Your task to perform on an android device: turn off sleep mode Image 0: 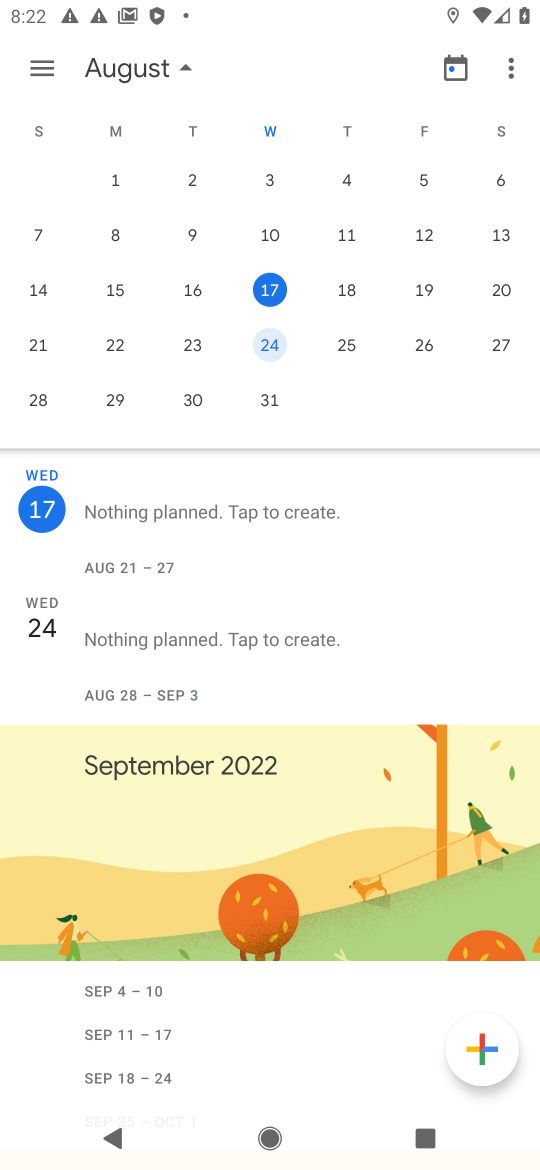
Step 0: press home button
Your task to perform on an android device: turn off sleep mode Image 1: 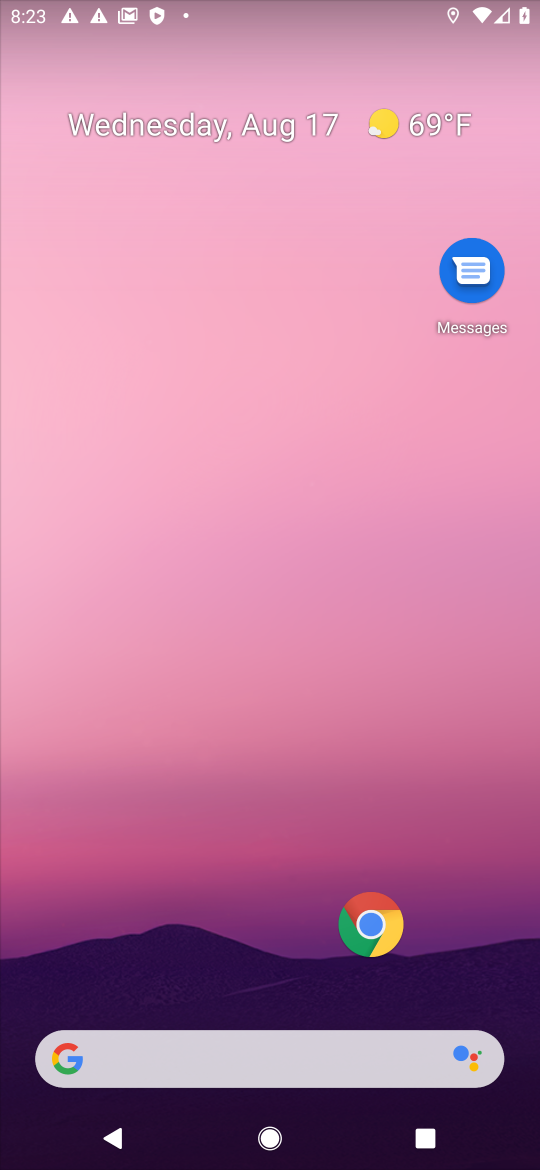
Step 1: drag from (334, 10) to (360, 770)
Your task to perform on an android device: turn off sleep mode Image 2: 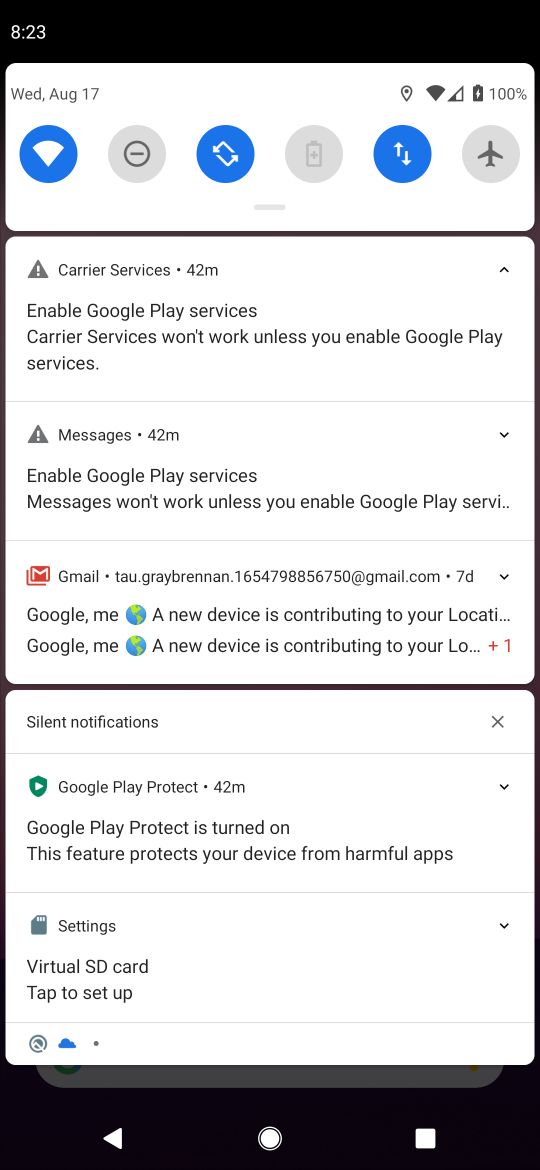
Step 2: drag from (303, 191) to (523, 874)
Your task to perform on an android device: turn off sleep mode Image 3: 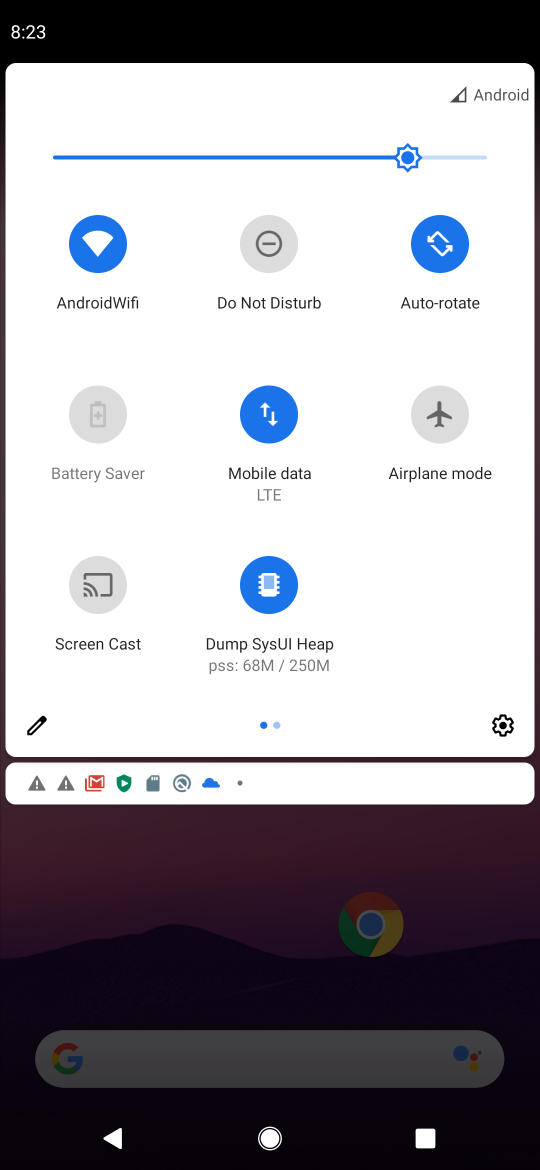
Step 3: click (478, 841)
Your task to perform on an android device: turn off sleep mode Image 4: 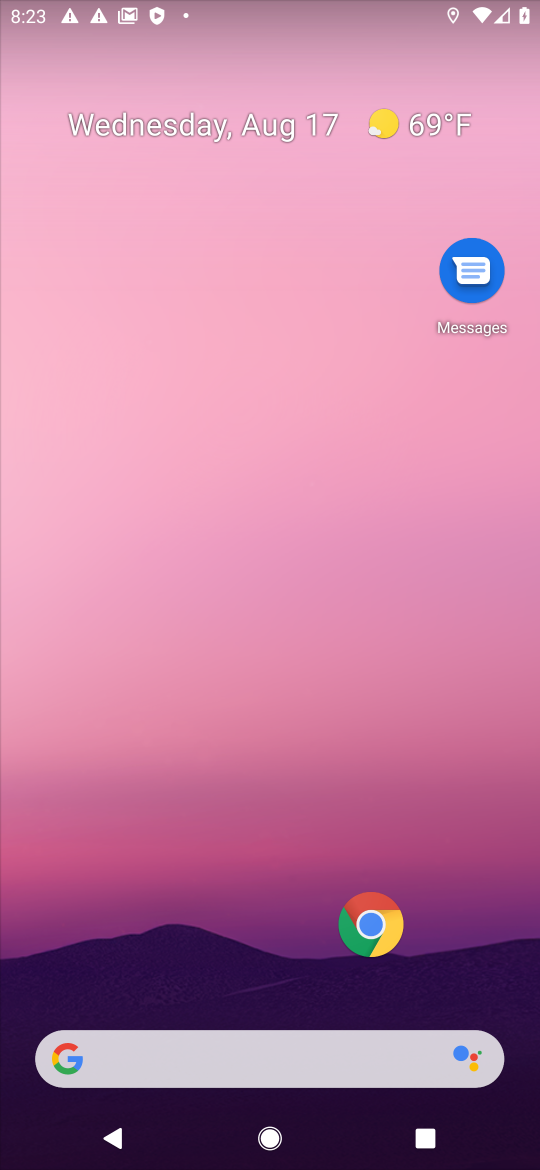
Step 4: drag from (219, 912) to (298, 65)
Your task to perform on an android device: turn off sleep mode Image 5: 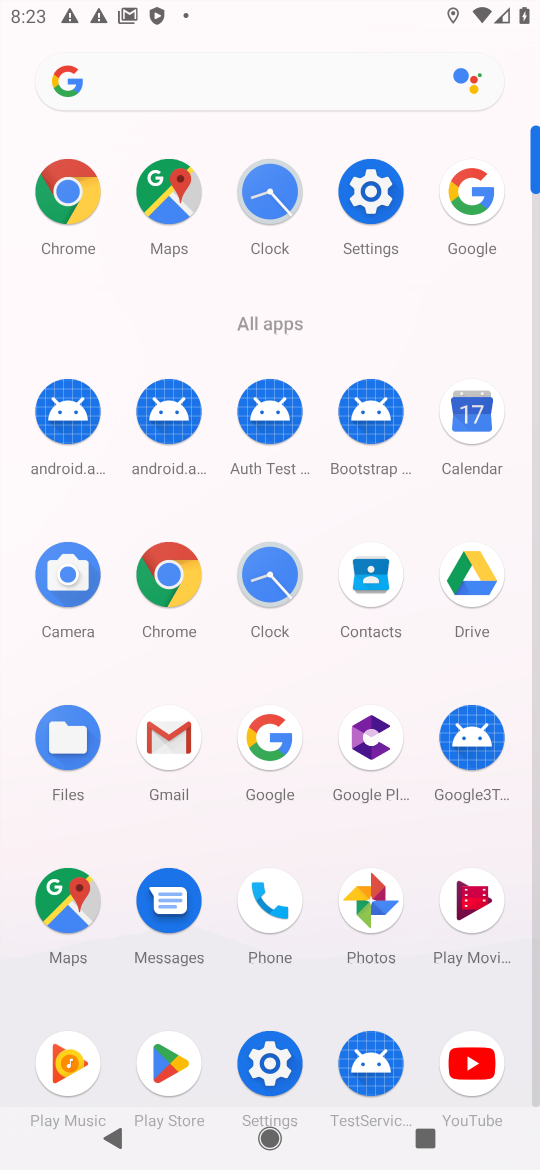
Step 5: click (374, 201)
Your task to perform on an android device: turn off sleep mode Image 6: 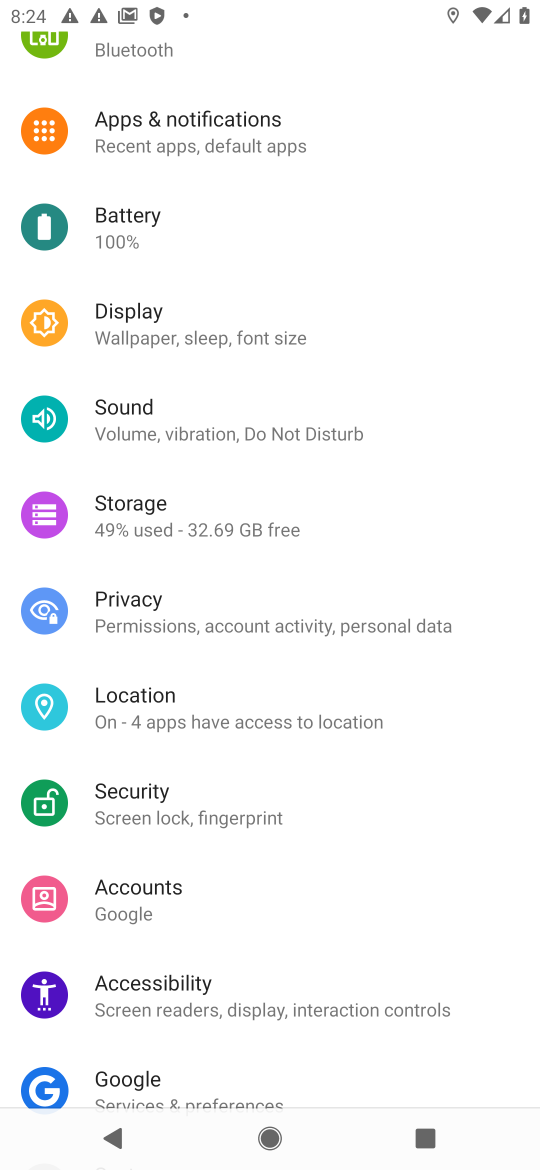
Step 6: drag from (218, 1004) to (282, 262)
Your task to perform on an android device: turn off sleep mode Image 7: 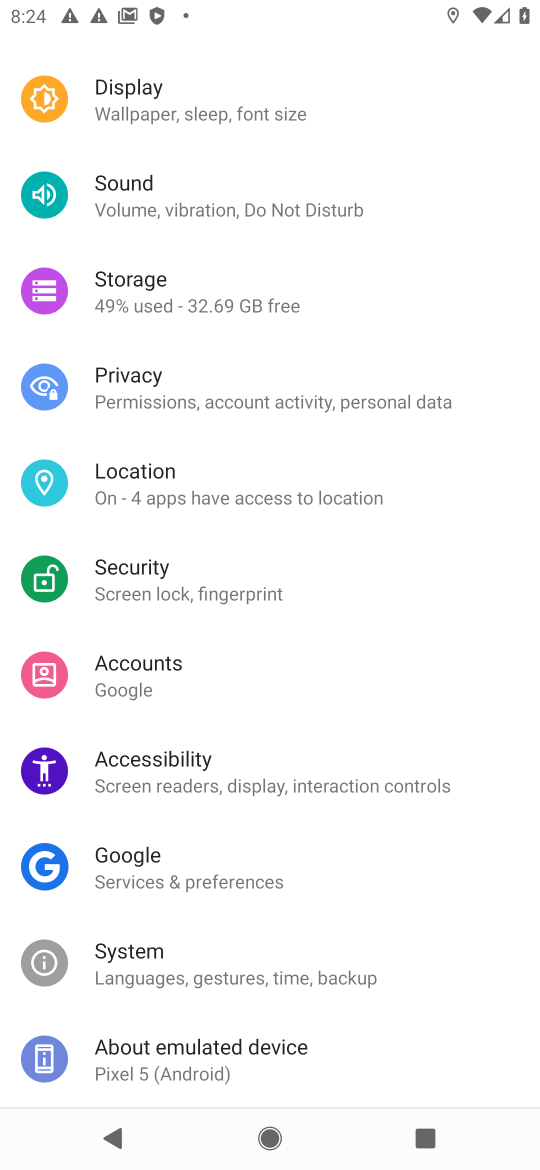
Step 7: drag from (185, 177) to (149, 899)
Your task to perform on an android device: turn off sleep mode Image 8: 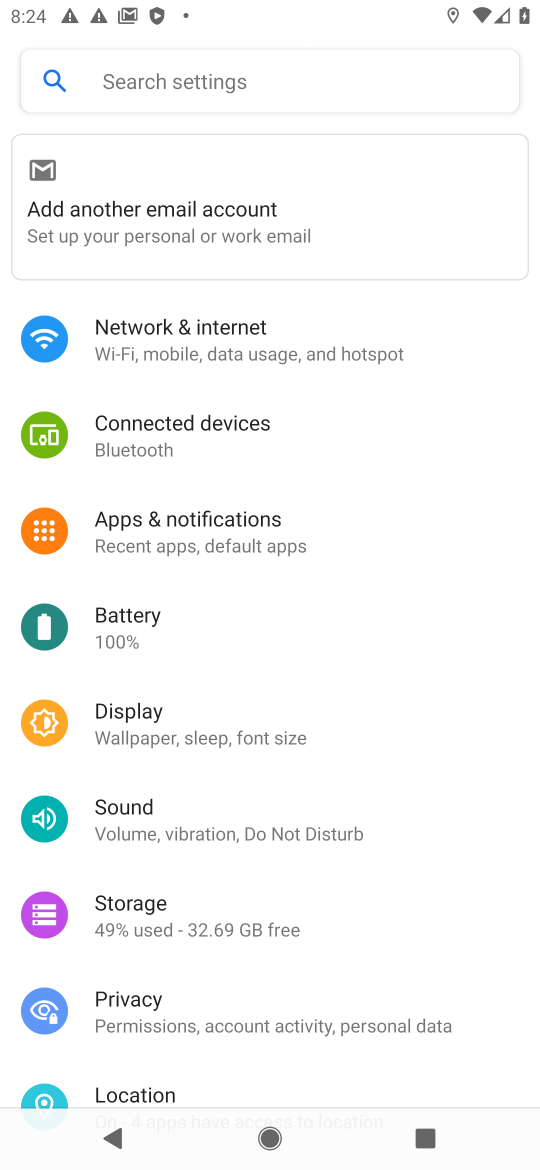
Step 8: click (147, 709)
Your task to perform on an android device: turn off sleep mode Image 9: 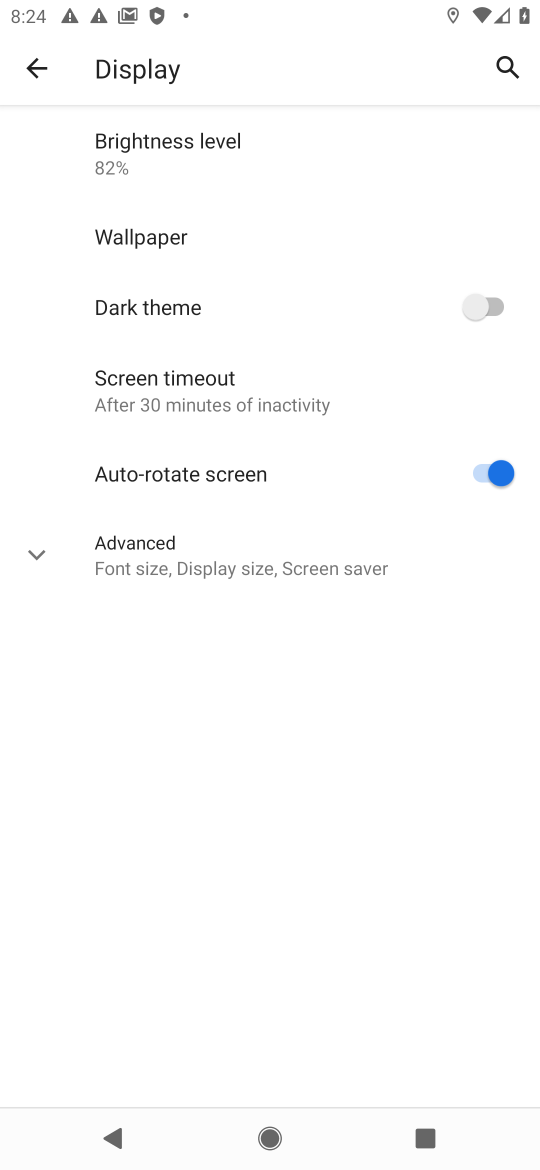
Step 9: click (182, 553)
Your task to perform on an android device: turn off sleep mode Image 10: 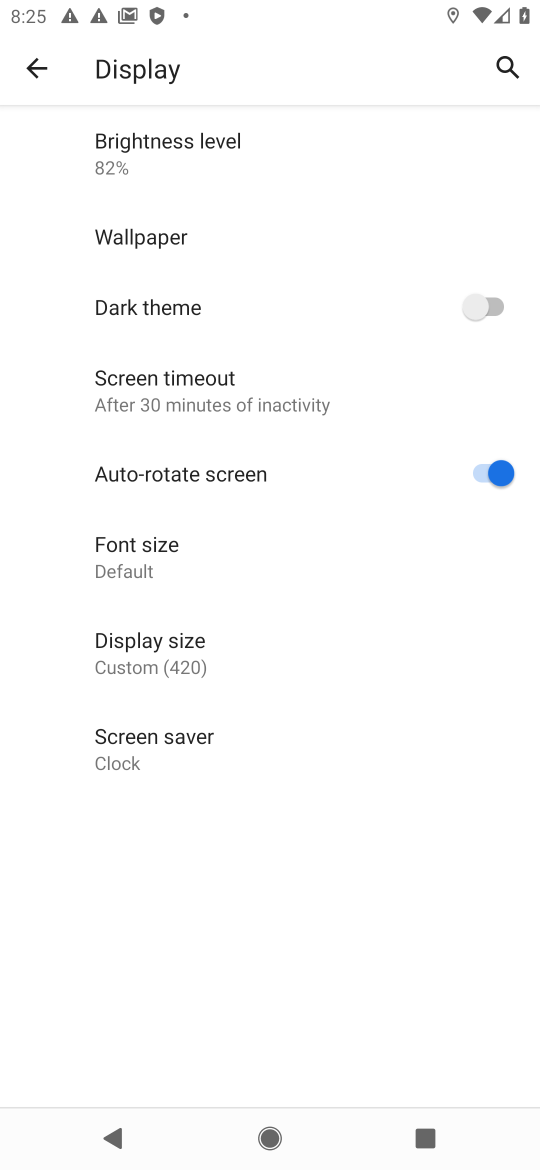
Step 10: click (248, 388)
Your task to perform on an android device: turn off sleep mode Image 11: 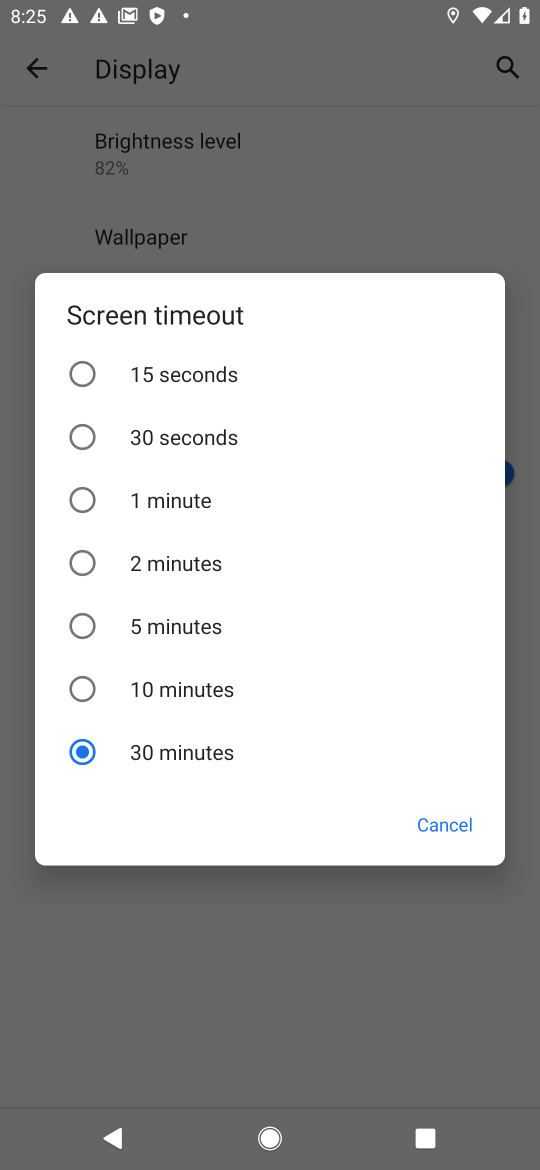
Step 11: click (172, 682)
Your task to perform on an android device: turn off sleep mode Image 12: 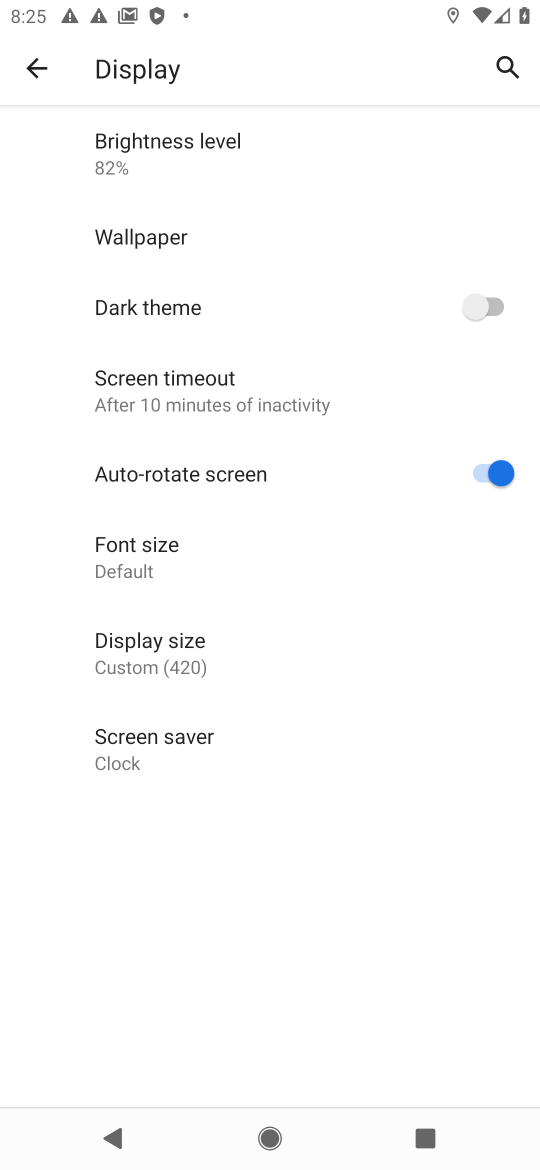
Step 12: task complete